Your task to perform on an android device: Open location settings Image 0: 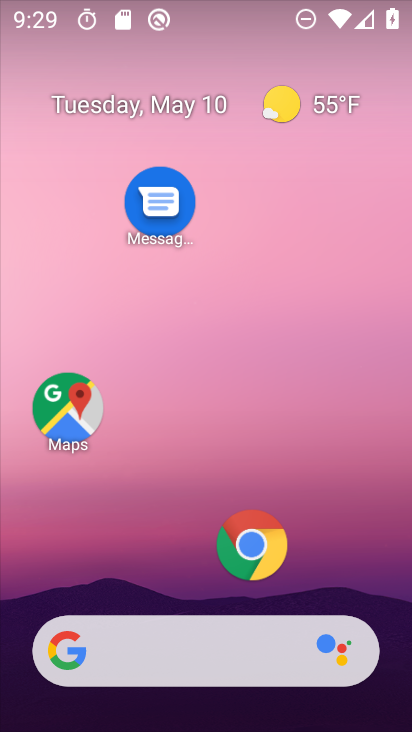
Step 0: drag from (186, 560) to (190, 131)
Your task to perform on an android device: Open location settings Image 1: 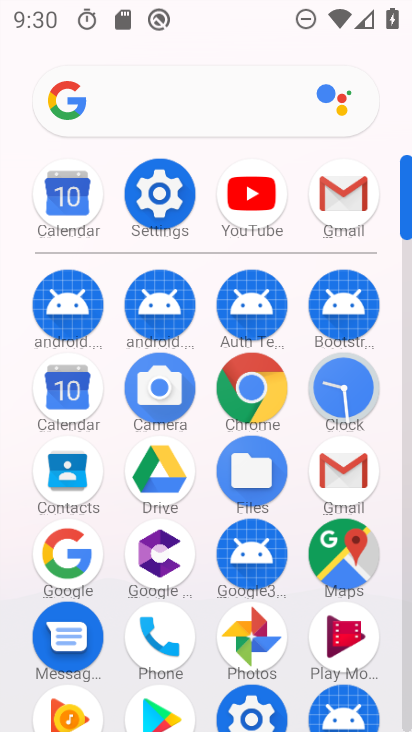
Step 1: click (160, 175)
Your task to perform on an android device: Open location settings Image 2: 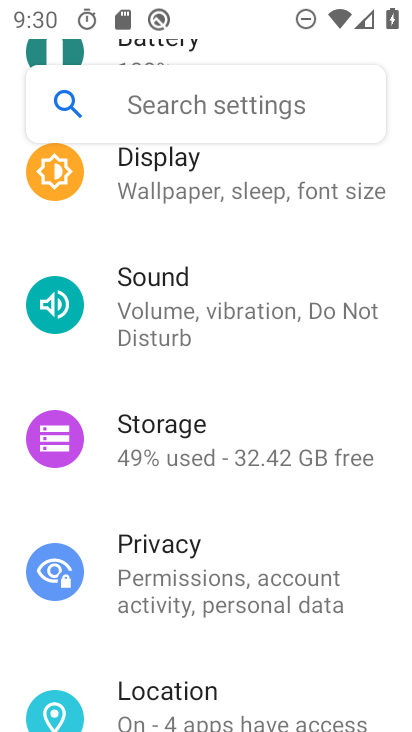
Step 2: click (234, 690)
Your task to perform on an android device: Open location settings Image 3: 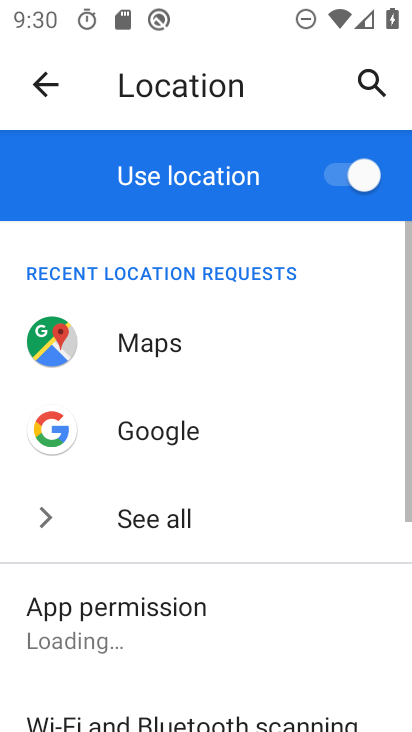
Step 3: task complete